Your task to perform on an android device: Open Chrome and go to the settings page Image 0: 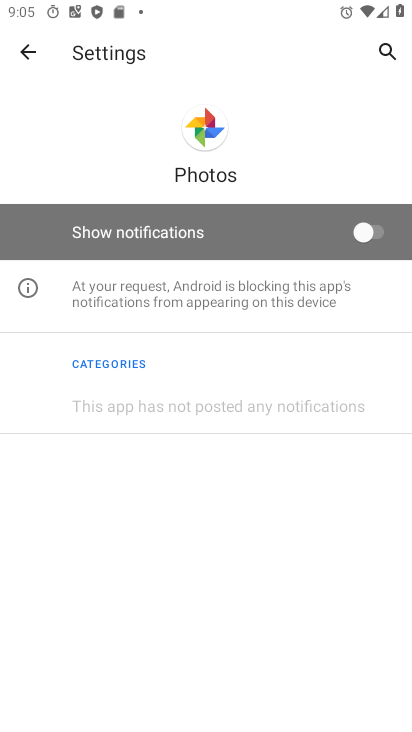
Step 0: press home button
Your task to perform on an android device: Open Chrome and go to the settings page Image 1: 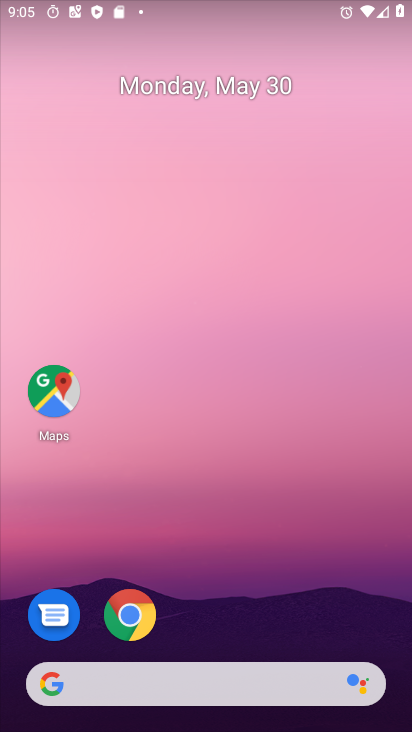
Step 1: drag from (339, 589) to (314, 47)
Your task to perform on an android device: Open Chrome and go to the settings page Image 2: 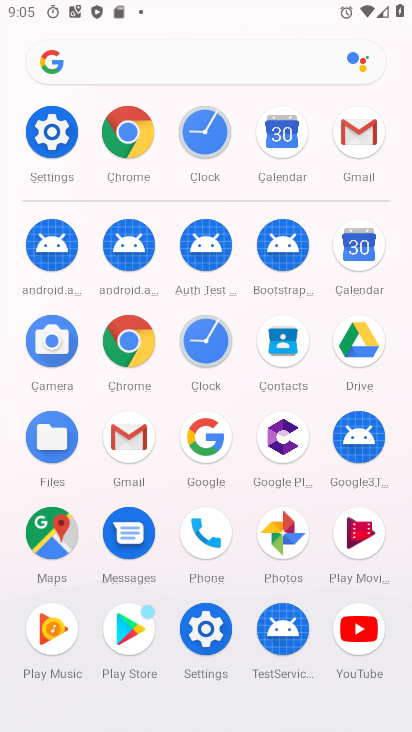
Step 2: click (139, 138)
Your task to perform on an android device: Open Chrome and go to the settings page Image 3: 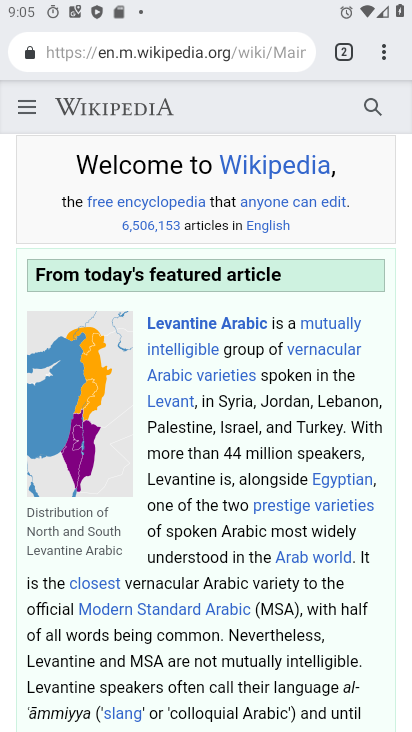
Step 3: task complete